Your task to perform on an android device: toggle airplane mode Image 0: 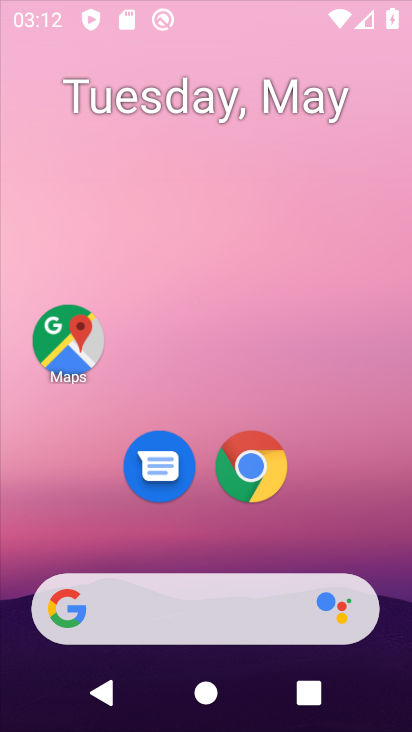
Step 0: drag from (223, 443) to (198, 266)
Your task to perform on an android device: toggle airplane mode Image 1: 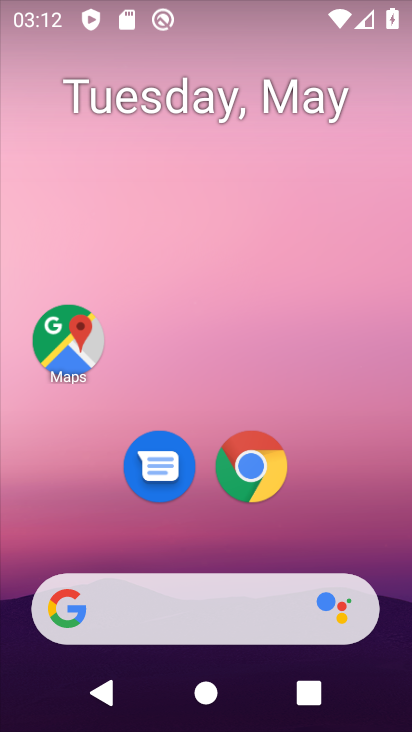
Step 1: drag from (254, 553) to (259, 270)
Your task to perform on an android device: toggle airplane mode Image 2: 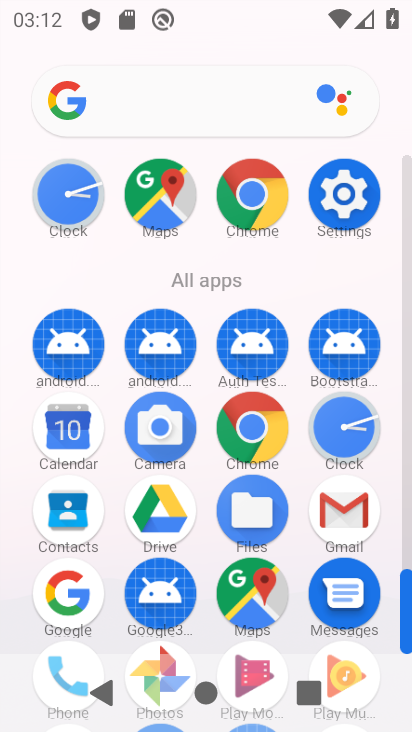
Step 2: click (352, 212)
Your task to perform on an android device: toggle airplane mode Image 3: 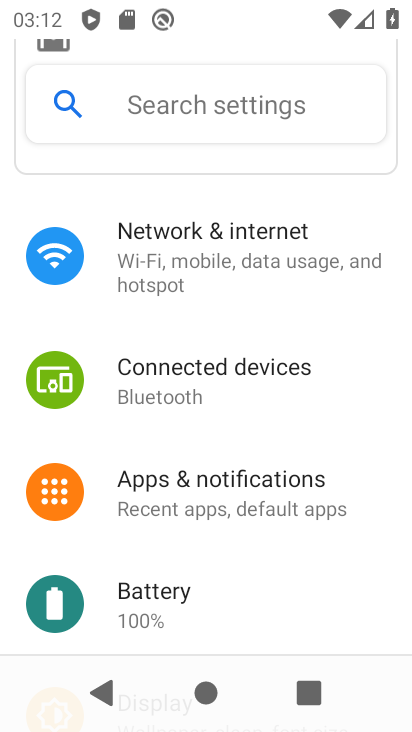
Step 3: click (212, 264)
Your task to perform on an android device: toggle airplane mode Image 4: 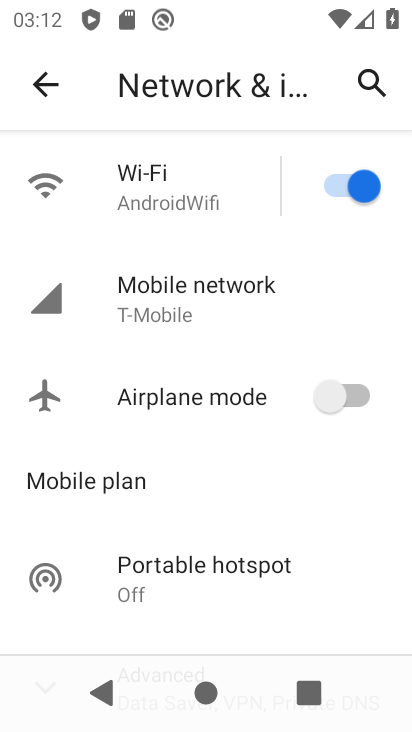
Step 4: click (350, 397)
Your task to perform on an android device: toggle airplane mode Image 5: 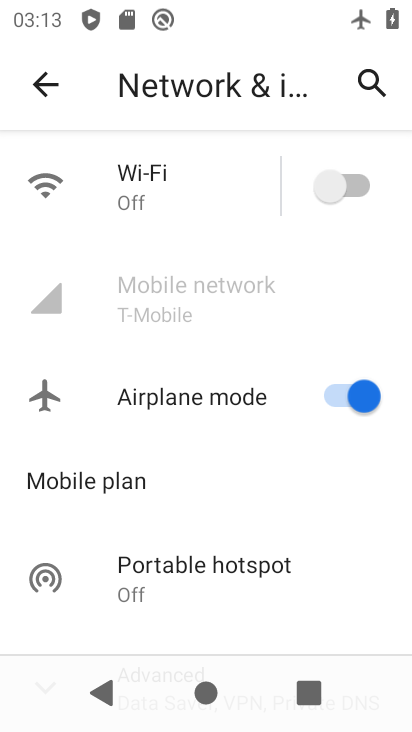
Step 5: task complete